Your task to perform on an android device: open app "Truecaller" Image 0: 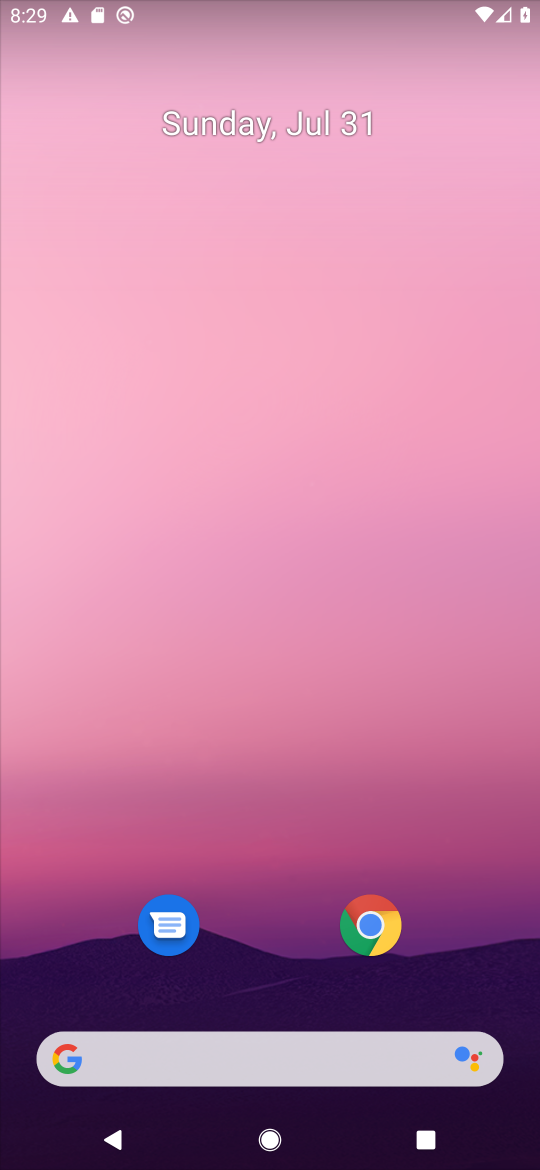
Step 0: drag from (229, 988) to (288, 55)
Your task to perform on an android device: open app "Truecaller" Image 1: 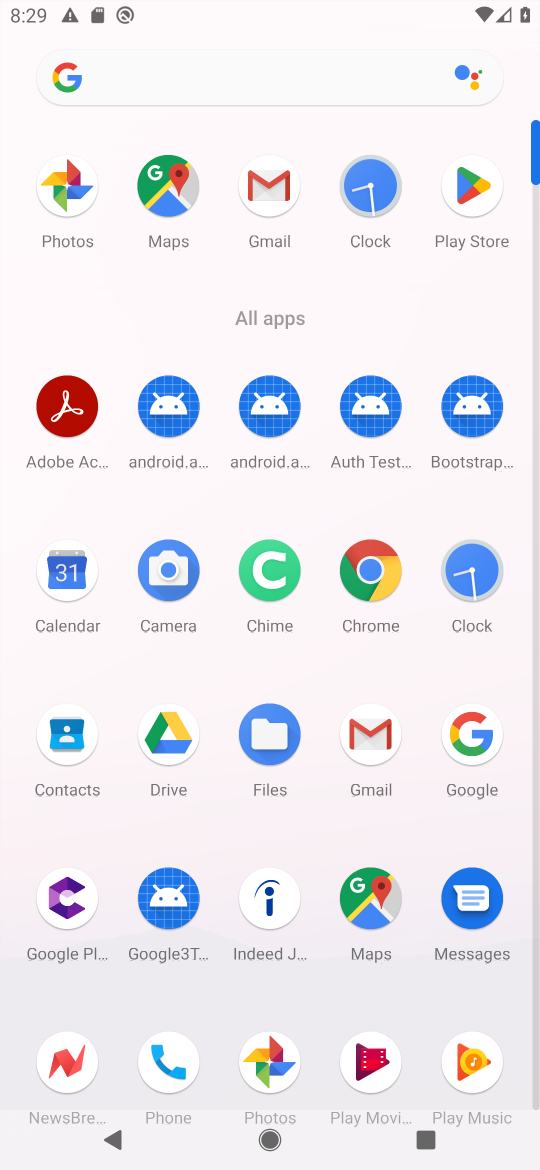
Step 1: click (463, 182)
Your task to perform on an android device: open app "Truecaller" Image 2: 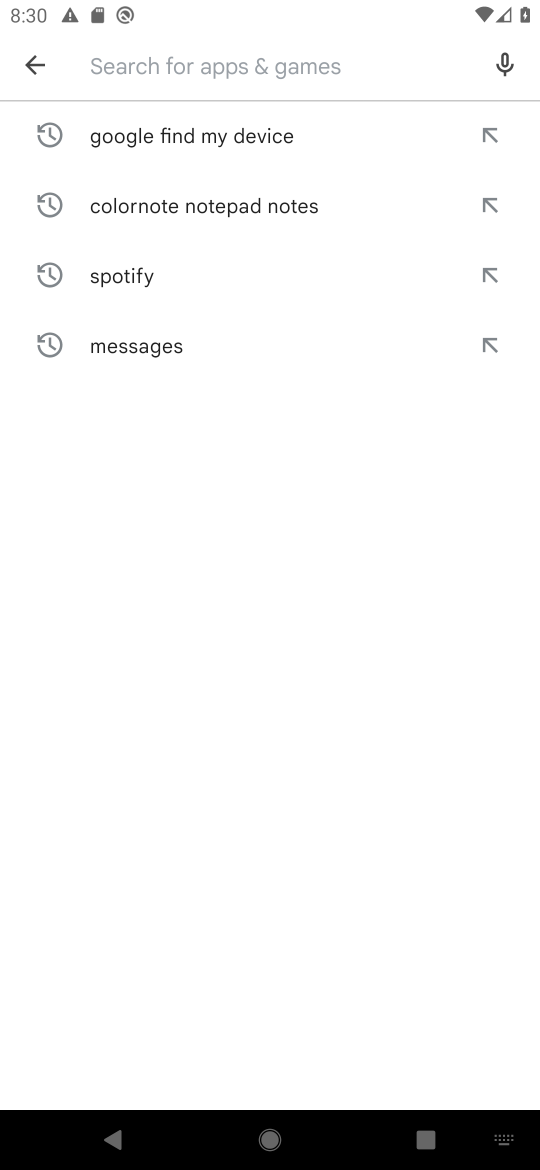
Step 2: type "truecaller"
Your task to perform on an android device: open app "Truecaller" Image 3: 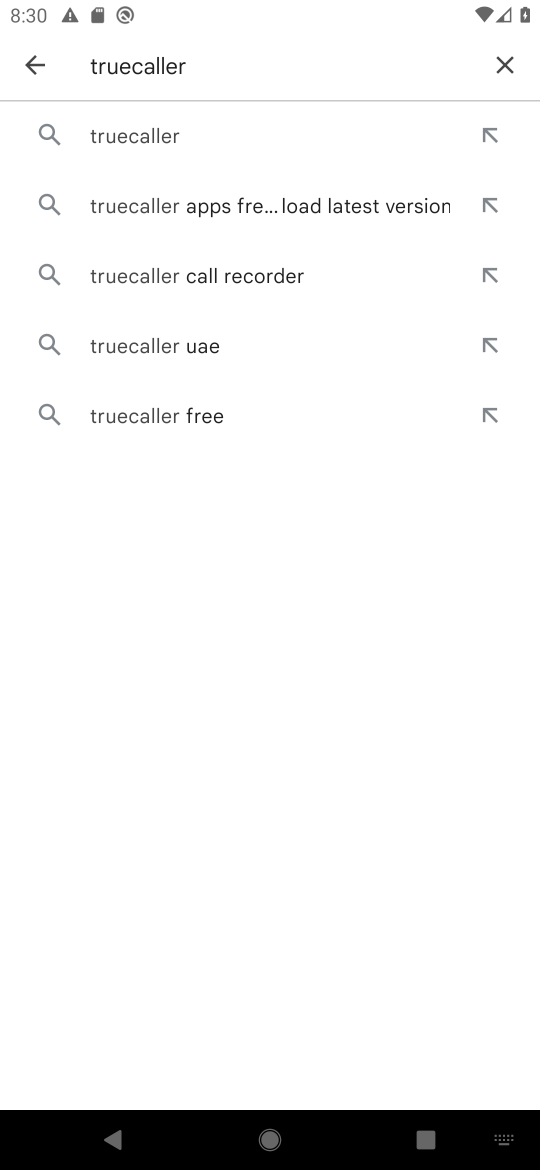
Step 3: click (243, 123)
Your task to perform on an android device: open app "Truecaller" Image 4: 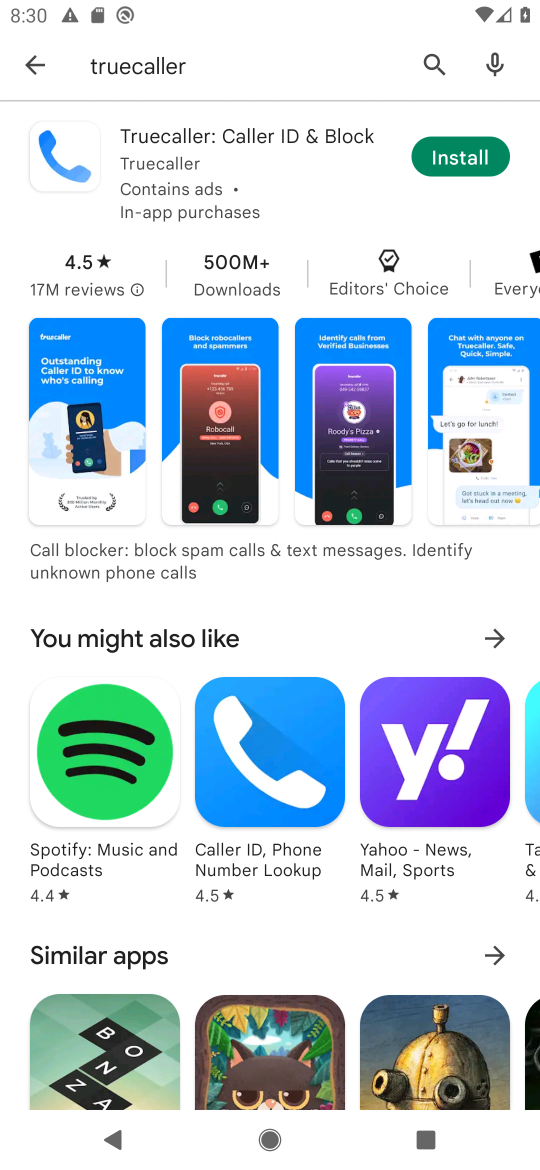
Step 4: click (300, 146)
Your task to perform on an android device: open app "Truecaller" Image 5: 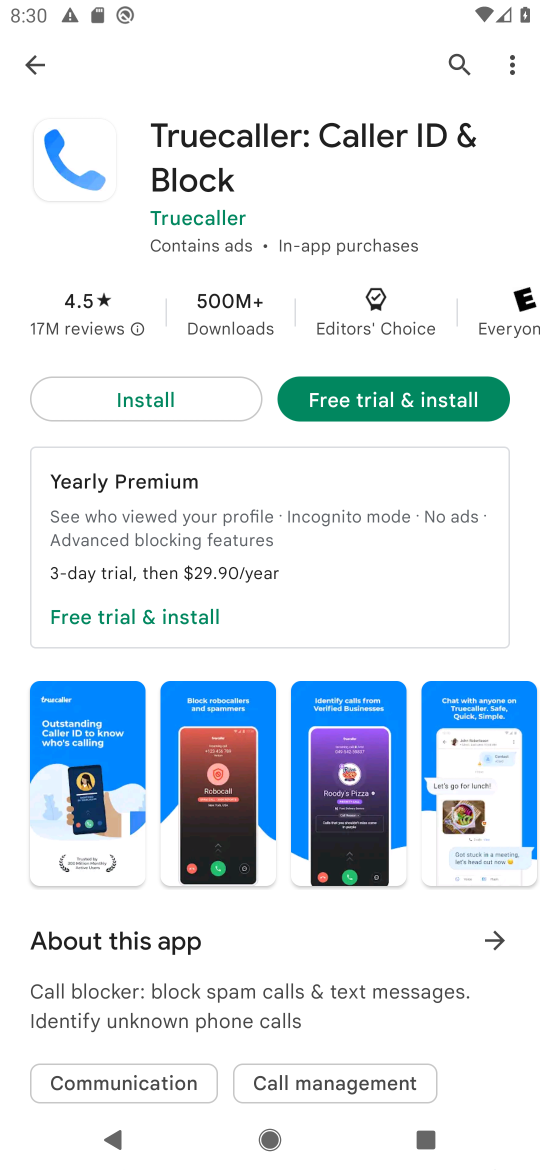
Step 5: task complete